Your task to perform on an android device: Open calendar and show me the third week of next month Image 0: 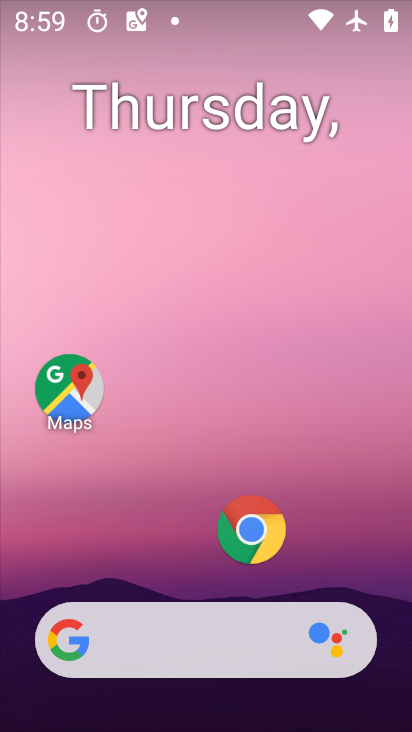
Step 0: press home button
Your task to perform on an android device: Open calendar and show me the third week of next month Image 1: 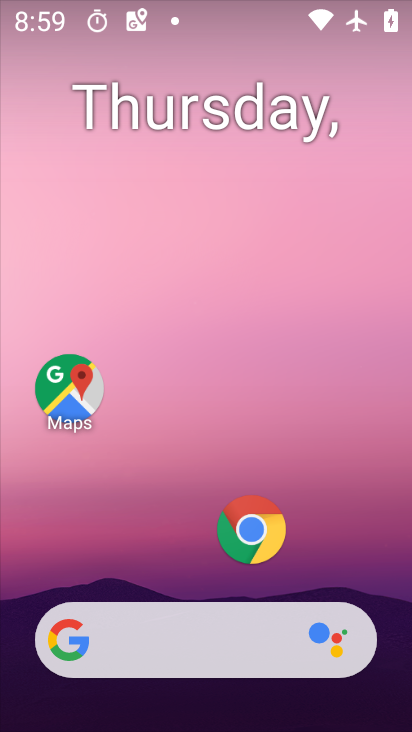
Step 1: drag from (204, 574) to (211, 68)
Your task to perform on an android device: Open calendar and show me the third week of next month Image 2: 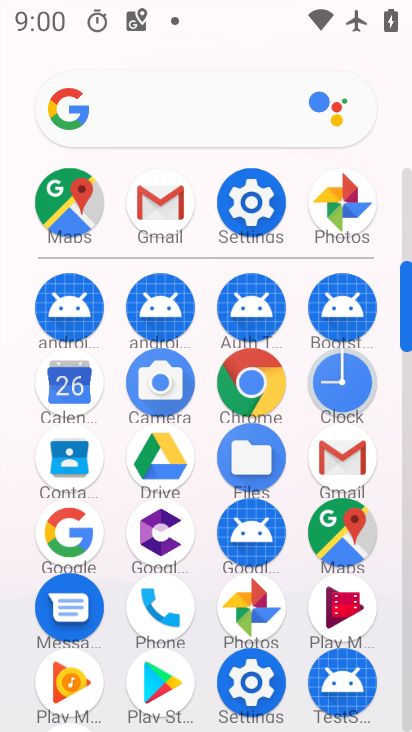
Step 2: click (65, 380)
Your task to perform on an android device: Open calendar and show me the third week of next month Image 3: 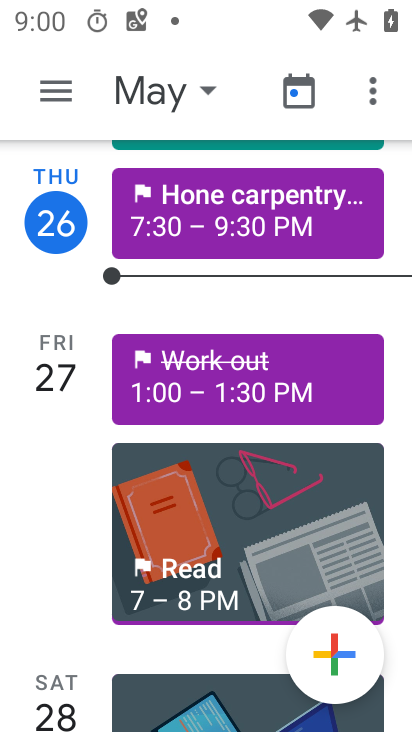
Step 3: click (204, 91)
Your task to perform on an android device: Open calendar and show me the third week of next month Image 4: 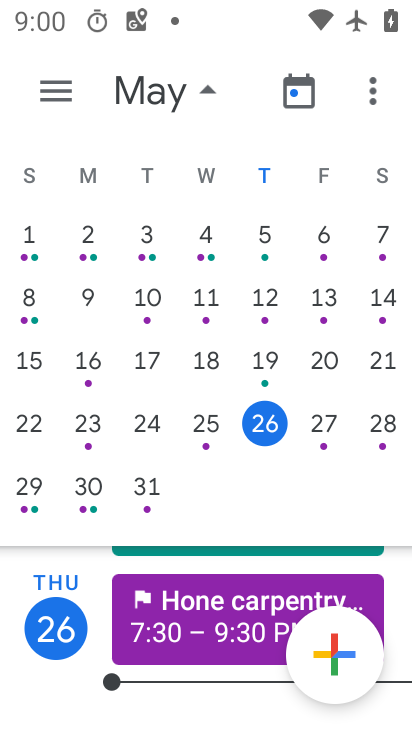
Step 4: drag from (353, 273) to (0, 304)
Your task to perform on an android device: Open calendar and show me the third week of next month Image 5: 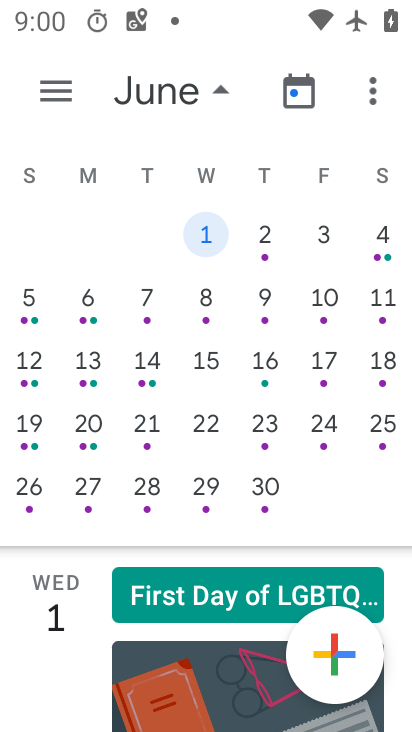
Step 5: click (22, 370)
Your task to perform on an android device: Open calendar and show me the third week of next month Image 6: 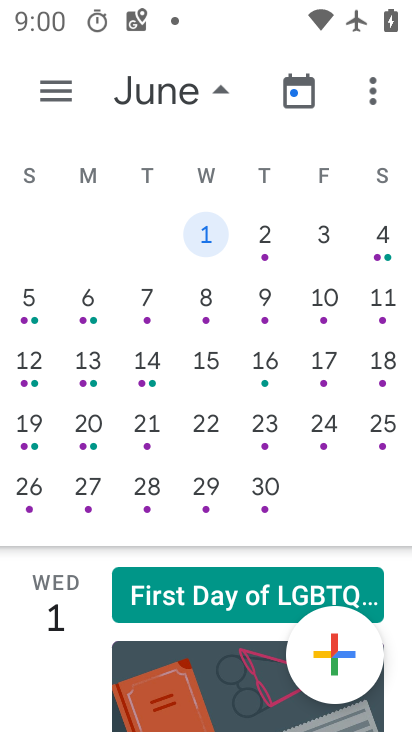
Step 6: click (204, 93)
Your task to perform on an android device: Open calendar and show me the third week of next month Image 7: 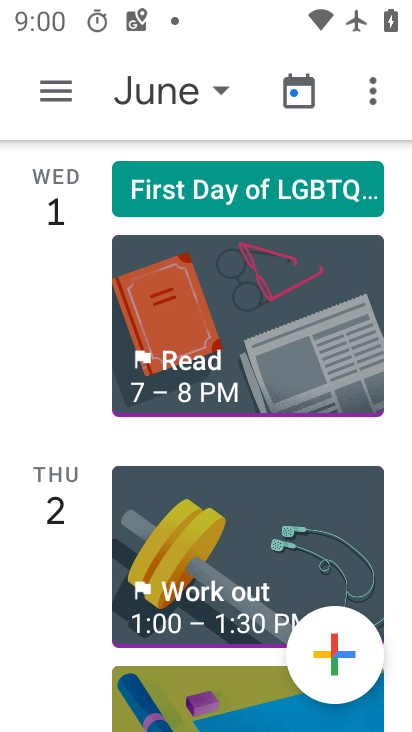
Step 7: click (214, 89)
Your task to perform on an android device: Open calendar and show me the third week of next month Image 8: 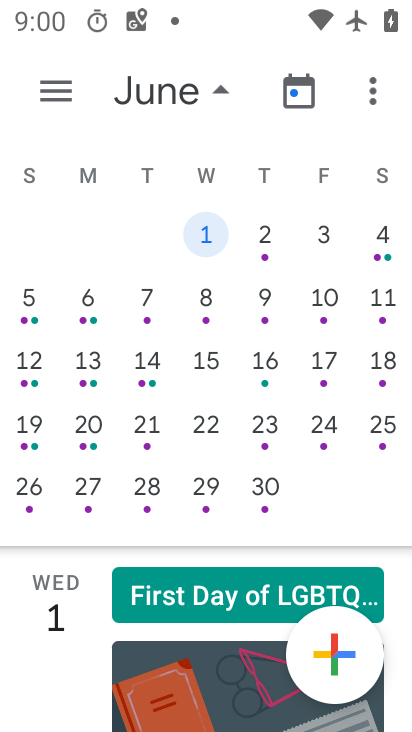
Step 8: click (34, 364)
Your task to perform on an android device: Open calendar and show me the third week of next month Image 9: 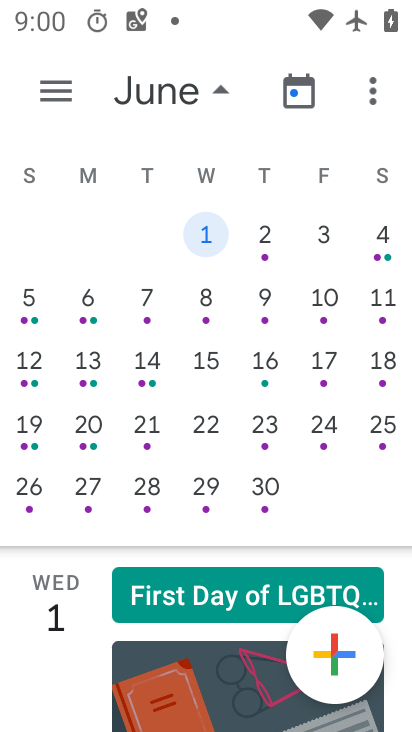
Step 9: click (34, 364)
Your task to perform on an android device: Open calendar and show me the third week of next month Image 10: 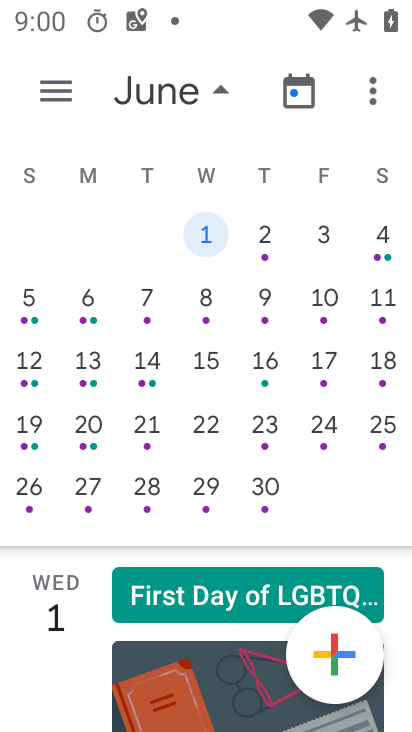
Step 10: click (40, 369)
Your task to perform on an android device: Open calendar and show me the third week of next month Image 11: 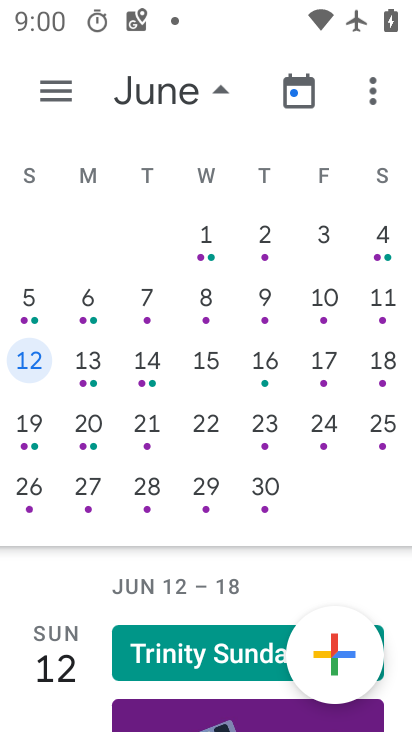
Step 11: click (217, 89)
Your task to perform on an android device: Open calendar and show me the third week of next month Image 12: 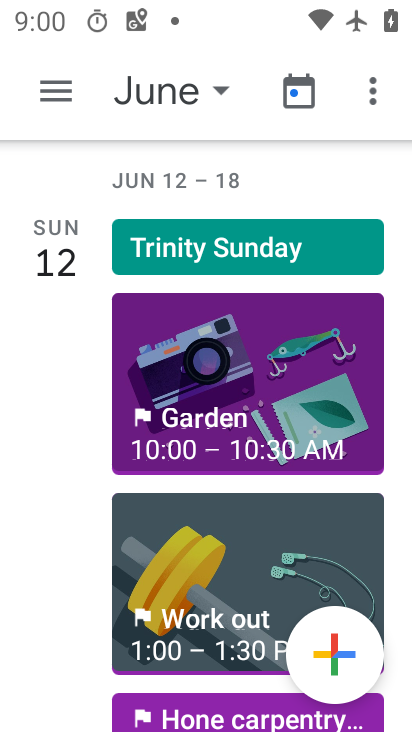
Step 12: task complete